Your task to perform on an android device: Open Google Chrome and click the shortcut for Amazon.com Image 0: 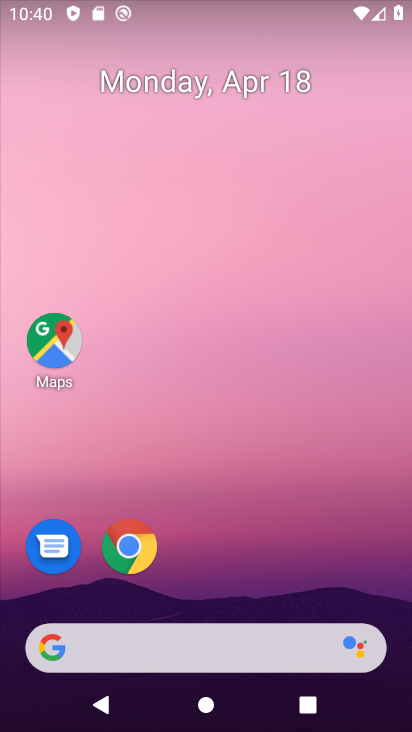
Step 0: click (149, 545)
Your task to perform on an android device: Open Google Chrome and click the shortcut for Amazon.com Image 1: 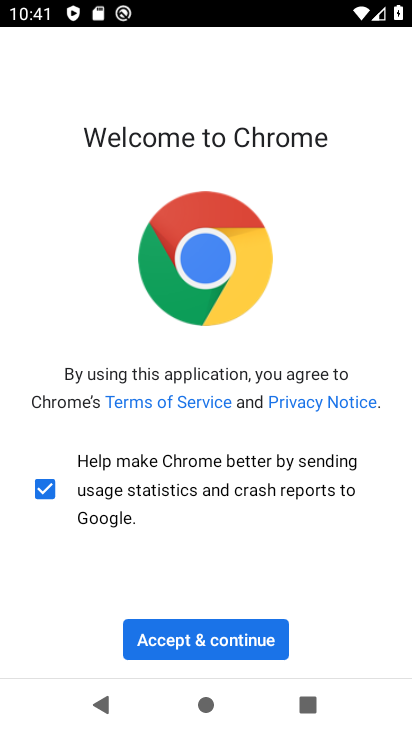
Step 1: click (223, 646)
Your task to perform on an android device: Open Google Chrome and click the shortcut for Amazon.com Image 2: 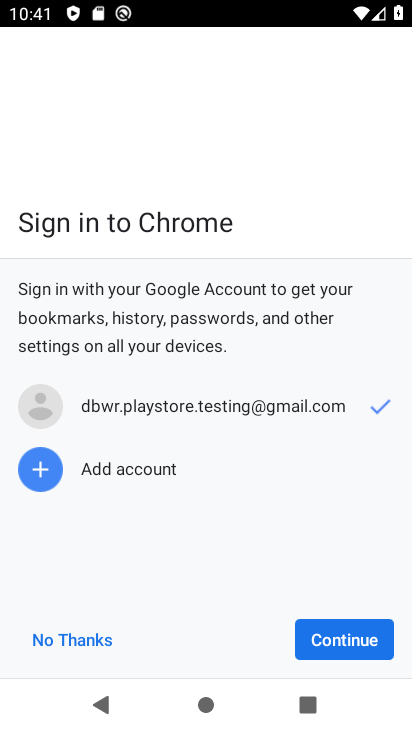
Step 2: click (327, 631)
Your task to perform on an android device: Open Google Chrome and click the shortcut for Amazon.com Image 3: 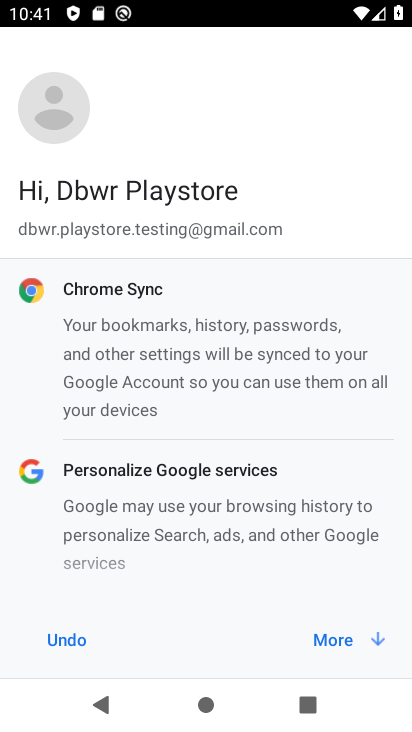
Step 3: click (327, 627)
Your task to perform on an android device: Open Google Chrome and click the shortcut for Amazon.com Image 4: 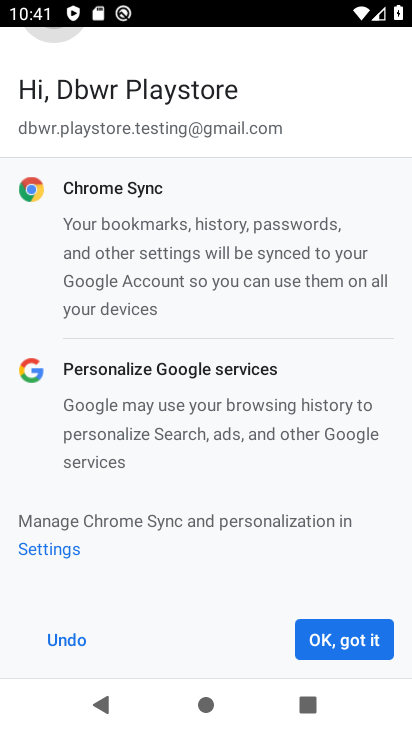
Step 4: click (327, 627)
Your task to perform on an android device: Open Google Chrome and click the shortcut for Amazon.com Image 5: 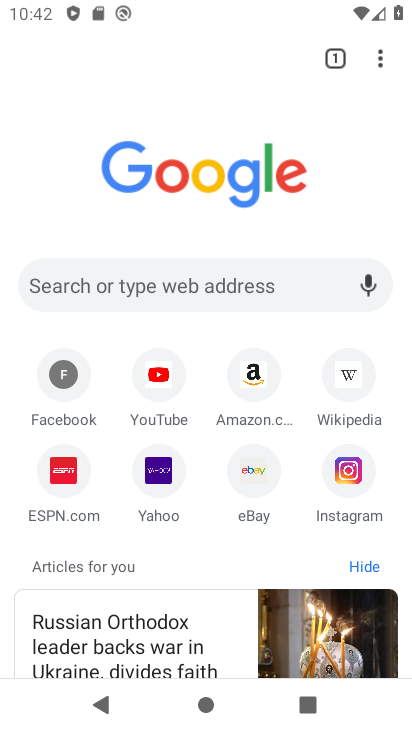
Step 5: click (276, 401)
Your task to perform on an android device: Open Google Chrome and click the shortcut for Amazon.com Image 6: 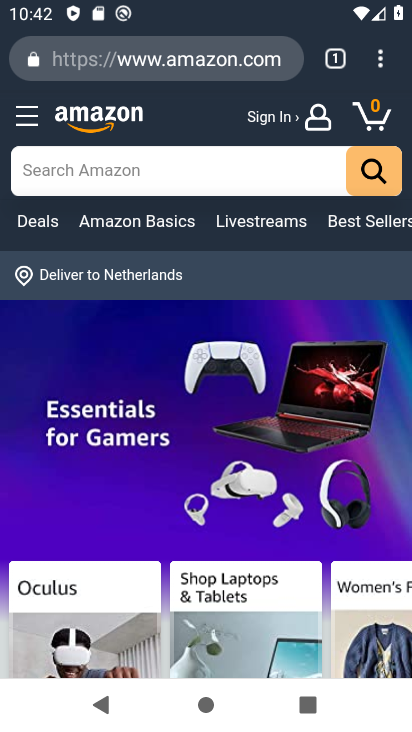
Step 6: task complete